Your task to perform on an android device: Go to CNN.com Image 0: 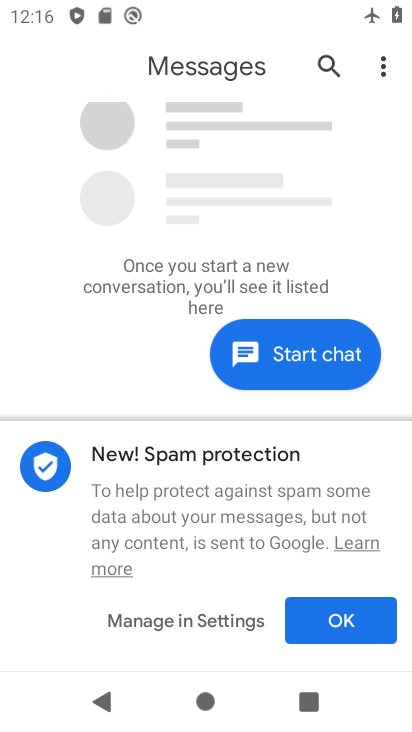
Step 0: press home button
Your task to perform on an android device: Go to CNN.com Image 1: 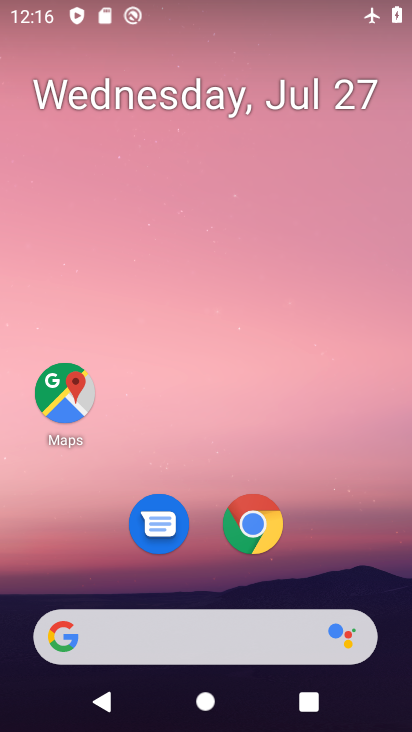
Step 1: click (209, 653)
Your task to perform on an android device: Go to CNN.com Image 2: 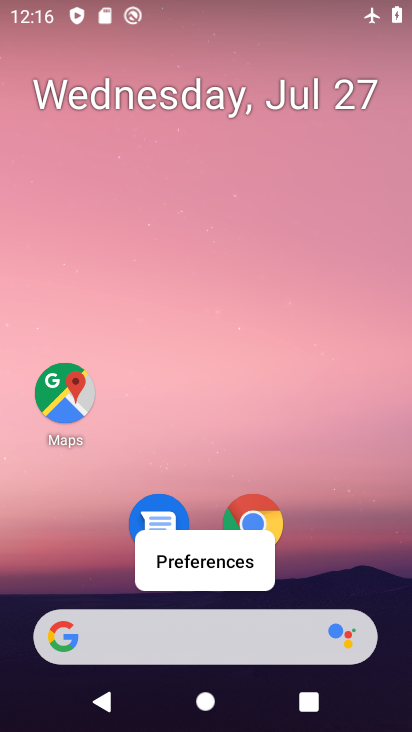
Step 2: click (165, 632)
Your task to perform on an android device: Go to CNN.com Image 3: 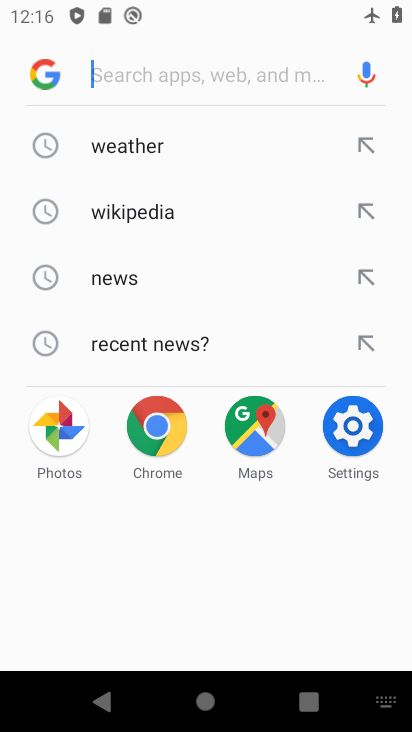
Step 3: type "cnn.com"
Your task to perform on an android device: Go to CNN.com Image 4: 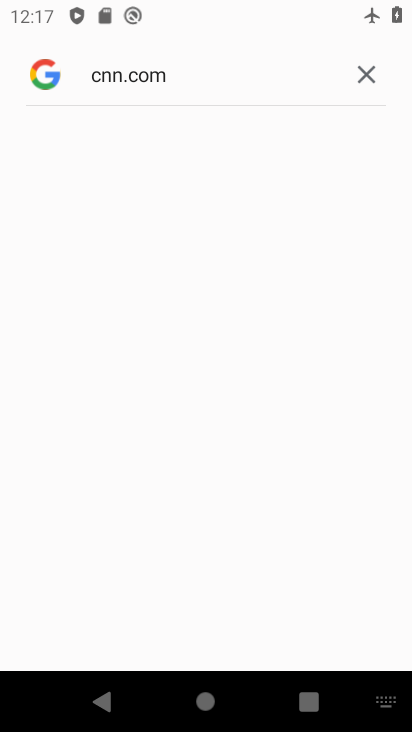
Step 4: task complete